Your task to perform on an android device: Open battery settings Image 0: 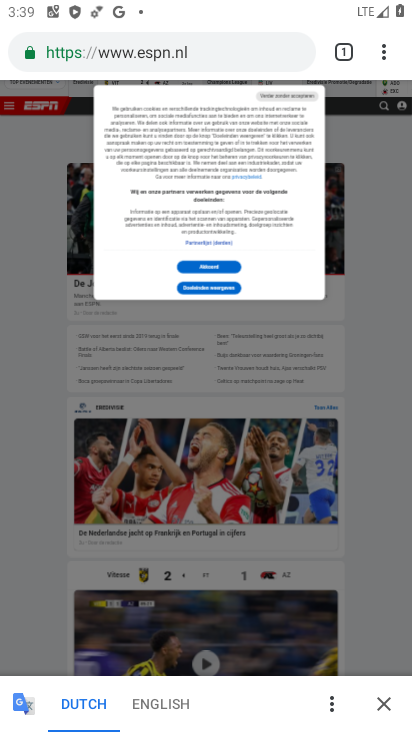
Step 0: press home button
Your task to perform on an android device: Open battery settings Image 1: 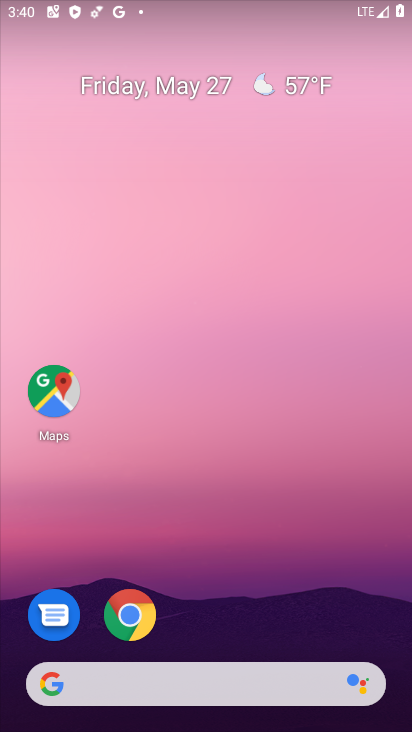
Step 1: drag from (202, 613) to (292, 7)
Your task to perform on an android device: Open battery settings Image 2: 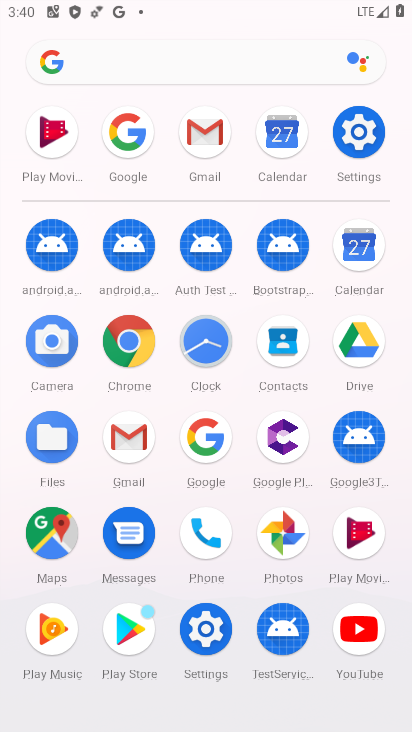
Step 2: click (365, 152)
Your task to perform on an android device: Open battery settings Image 3: 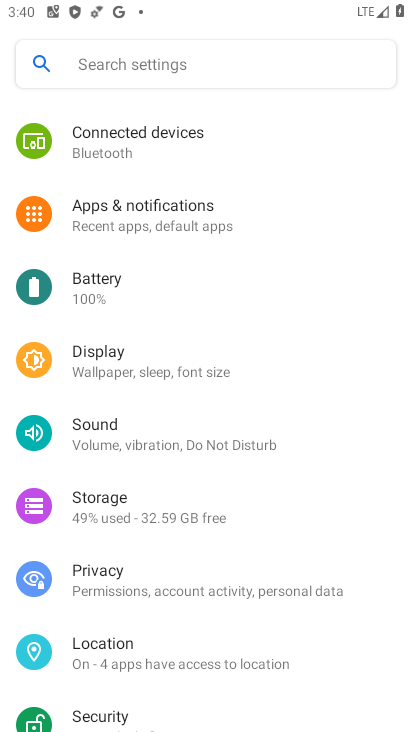
Step 3: click (116, 258)
Your task to perform on an android device: Open battery settings Image 4: 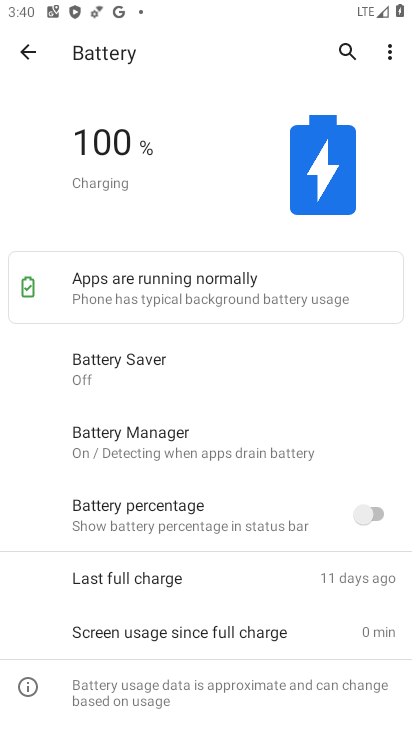
Step 4: task complete